Your task to perform on an android device: toggle notifications settings in the gmail app Image 0: 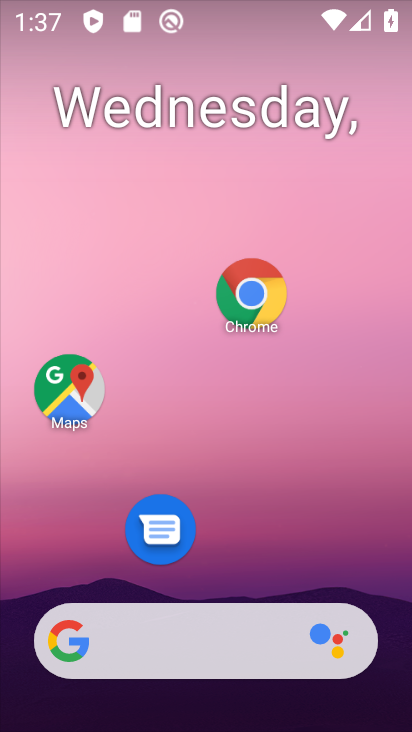
Step 0: drag from (228, 611) to (276, 183)
Your task to perform on an android device: toggle notifications settings in the gmail app Image 1: 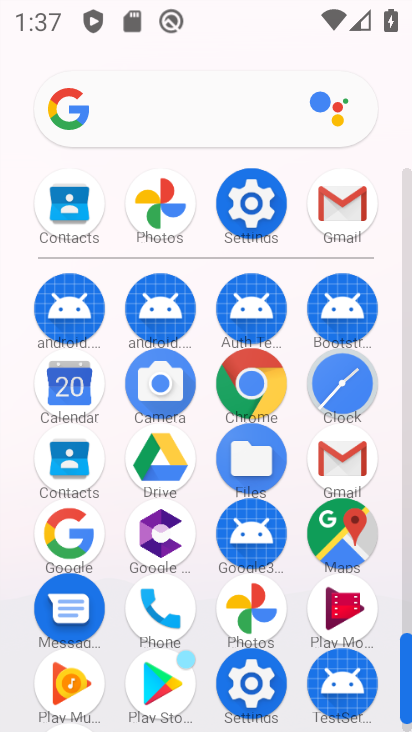
Step 1: click (330, 213)
Your task to perform on an android device: toggle notifications settings in the gmail app Image 2: 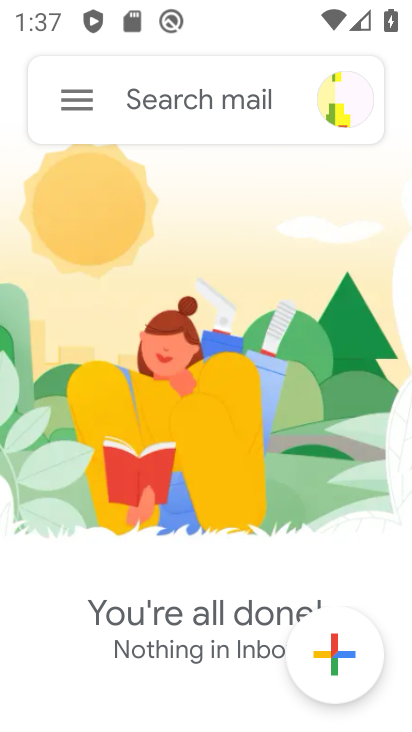
Step 2: click (80, 104)
Your task to perform on an android device: toggle notifications settings in the gmail app Image 3: 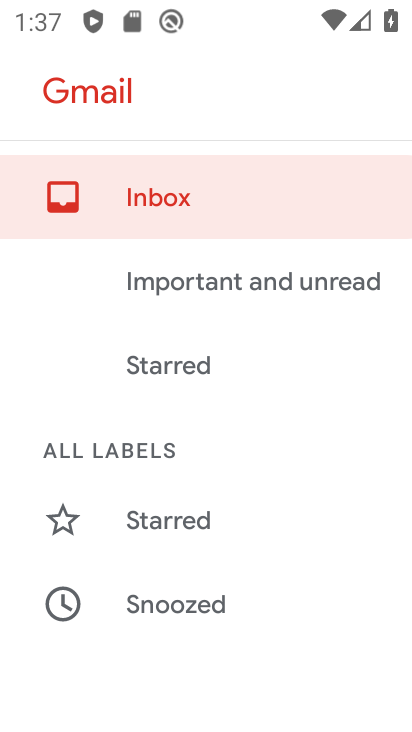
Step 3: drag from (141, 604) to (156, 136)
Your task to perform on an android device: toggle notifications settings in the gmail app Image 4: 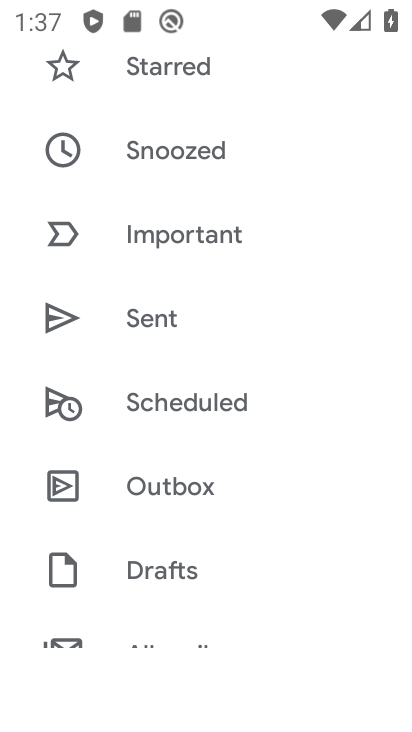
Step 4: drag from (197, 557) to (209, 154)
Your task to perform on an android device: toggle notifications settings in the gmail app Image 5: 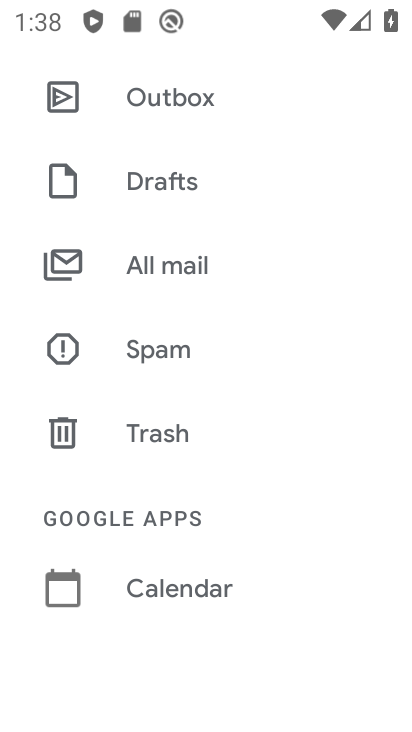
Step 5: drag from (216, 346) to (216, 196)
Your task to perform on an android device: toggle notifications settings in the gmail app Image 6: 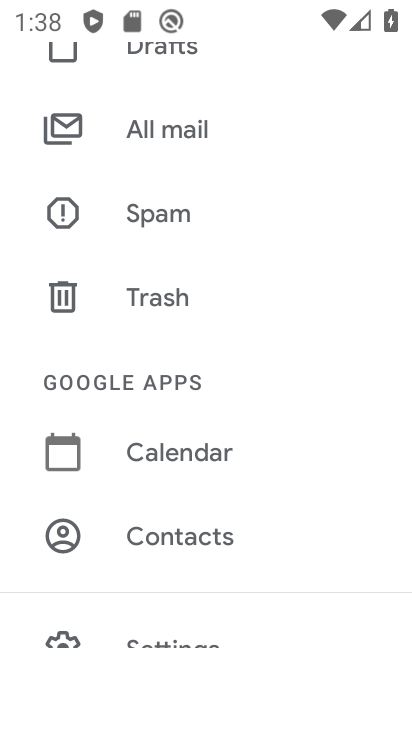
Step 6: drag from (185, 492) to (179, 224)
Your task to perform on an android device: toggle notifications settings in the gmail app Image 7: 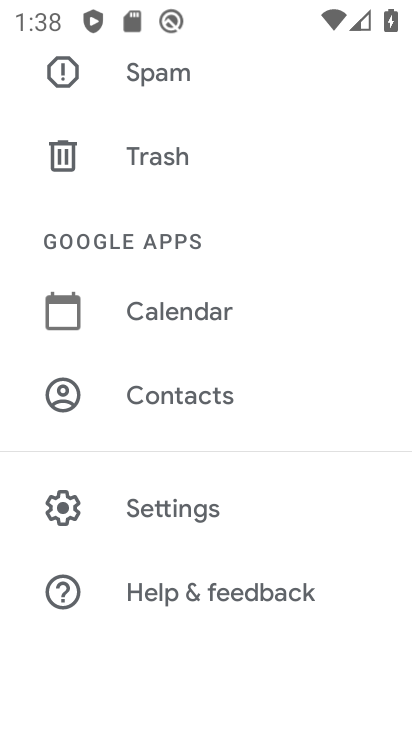
Step 7: click (206, 516)
Your task to perform on an android device: toggle notifications settings in the gmail app Image 8: 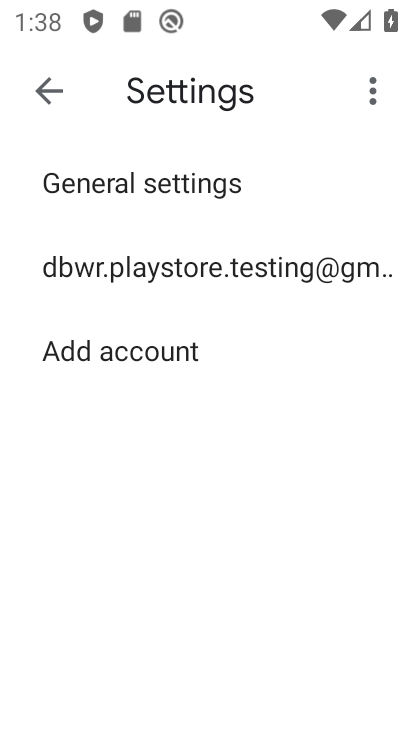
Step 8: click (170, 206)
Your task to perform on an android device: toggle notifications settings in the gmail app Image 9: 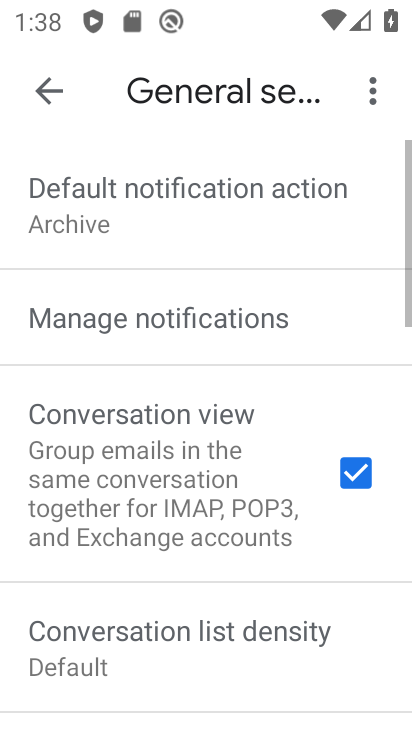
Step 9: click (162, 297)
Your task to perform on an android device: toggle notifications settings in the gmail app Image 10: 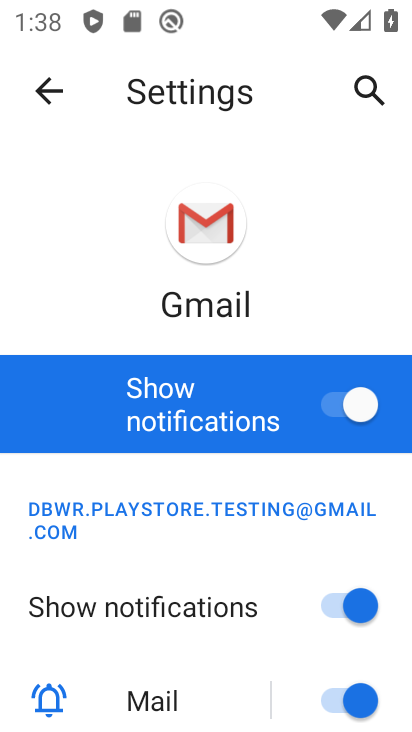
Step 10: click (317, 404)
Your task to perform on an android device: toggle notifications settings in the gmail app Image 11: 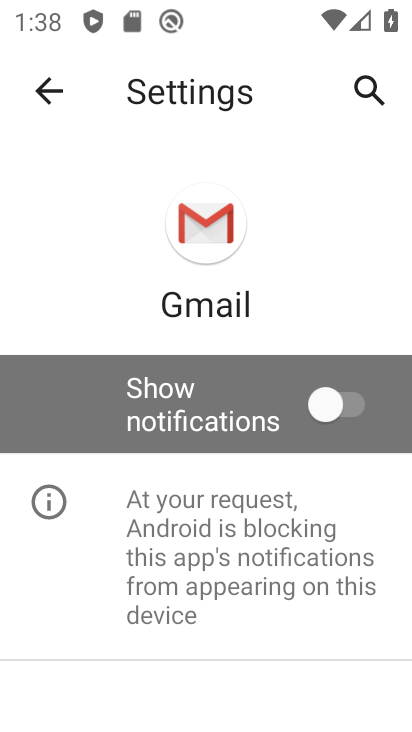
Step 11: task complete